Your task to perform on an android device: refresh tabs in the chrome app Image 0: 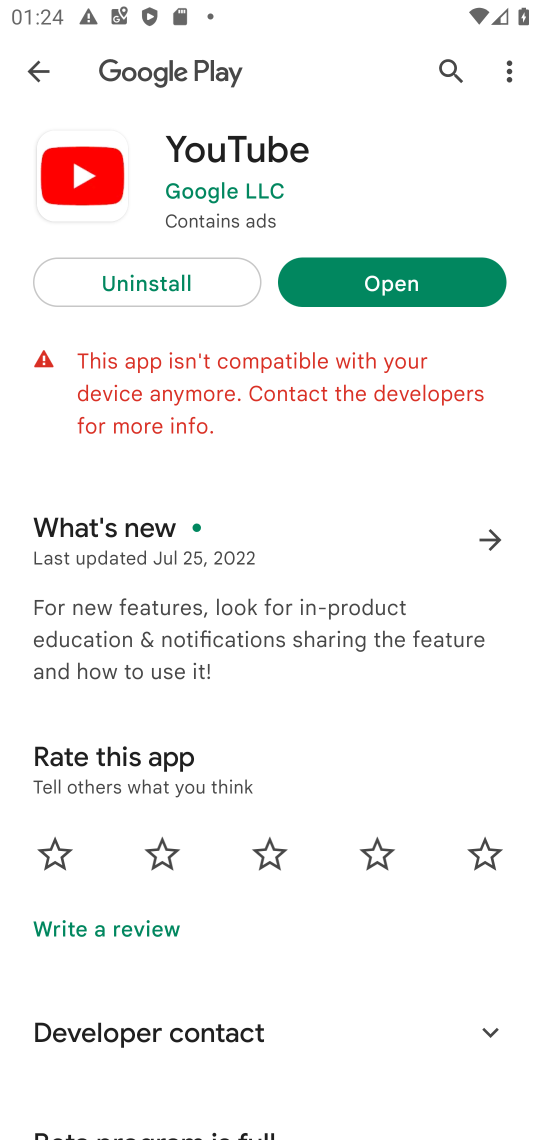
Step 0: press home button
Your task to perform on an android device: refresh tabs in the chrome app Image 1: 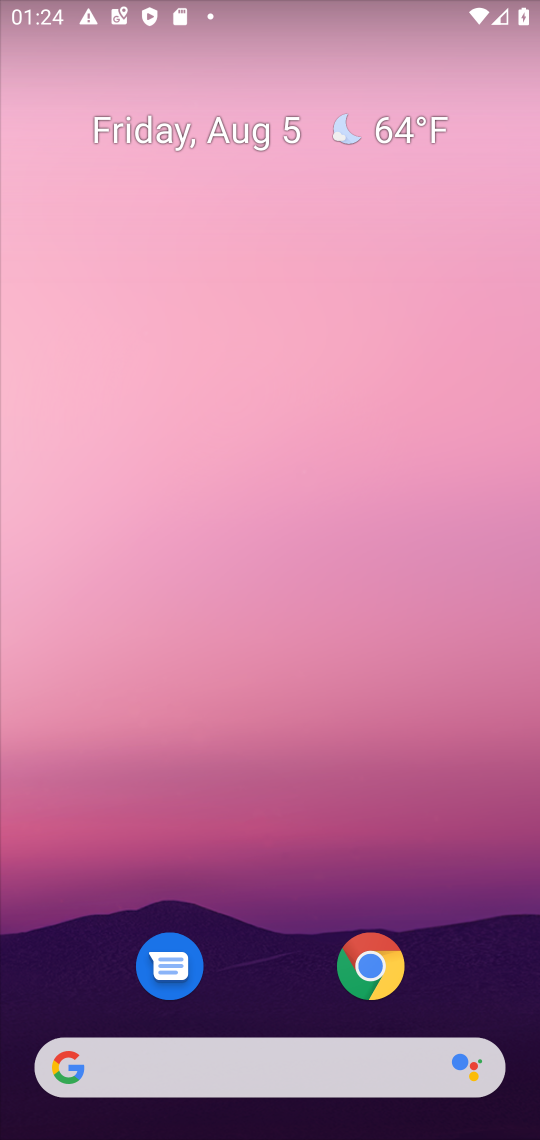
Step 1: click (376, 973)
Your task to perform on an android device: refresh tabs in the chrome app Image 2: 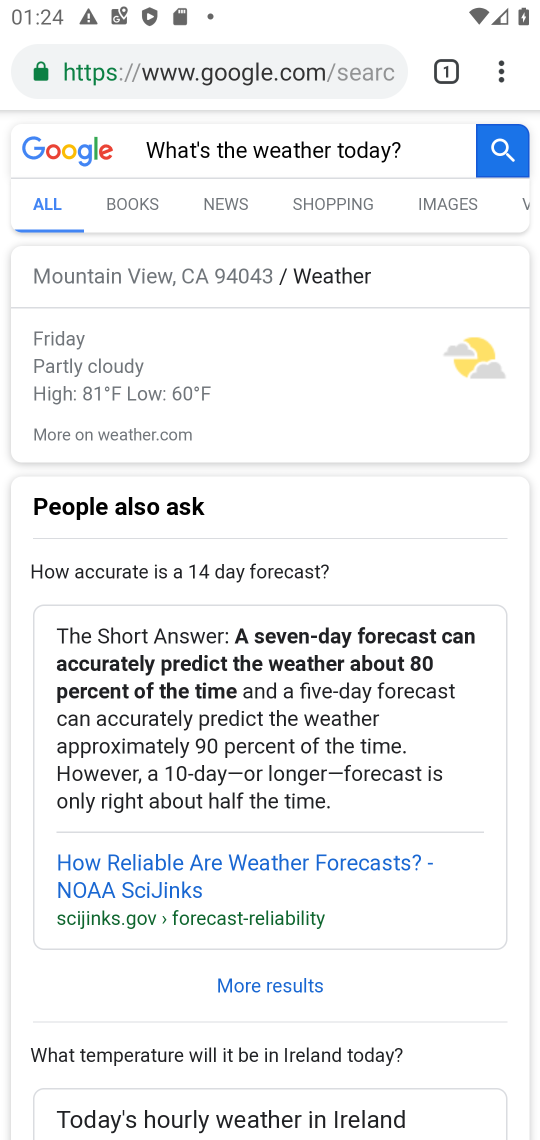
Step 2: click (503, 66)
Your task to perform on an android device: refresh tabs in the chrome app Image 3: 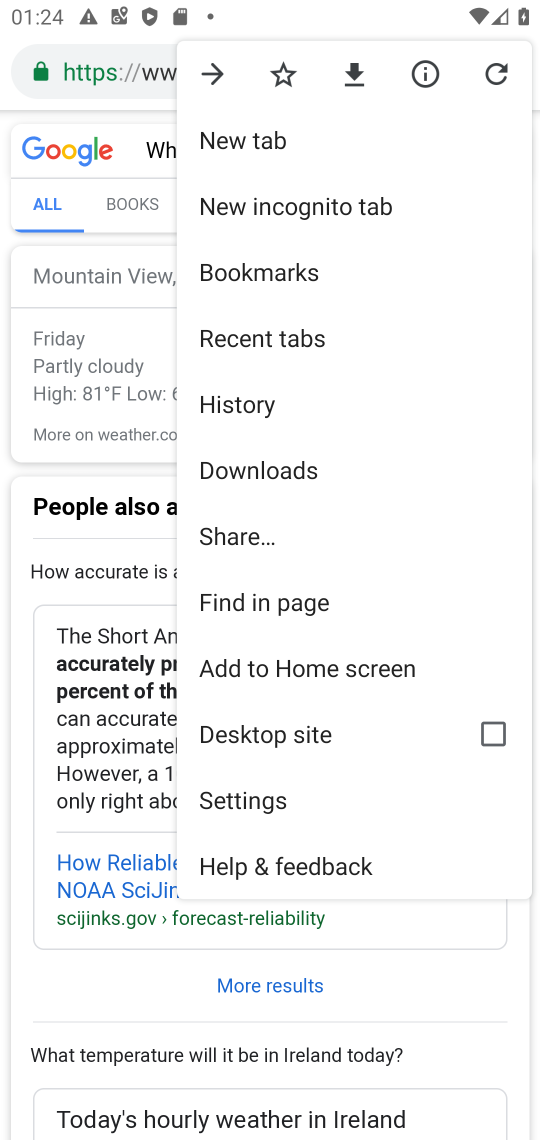
Step 3: click (503, 66)
Your task to perform on an android device: refresh tabs in the chrome app Image 4: 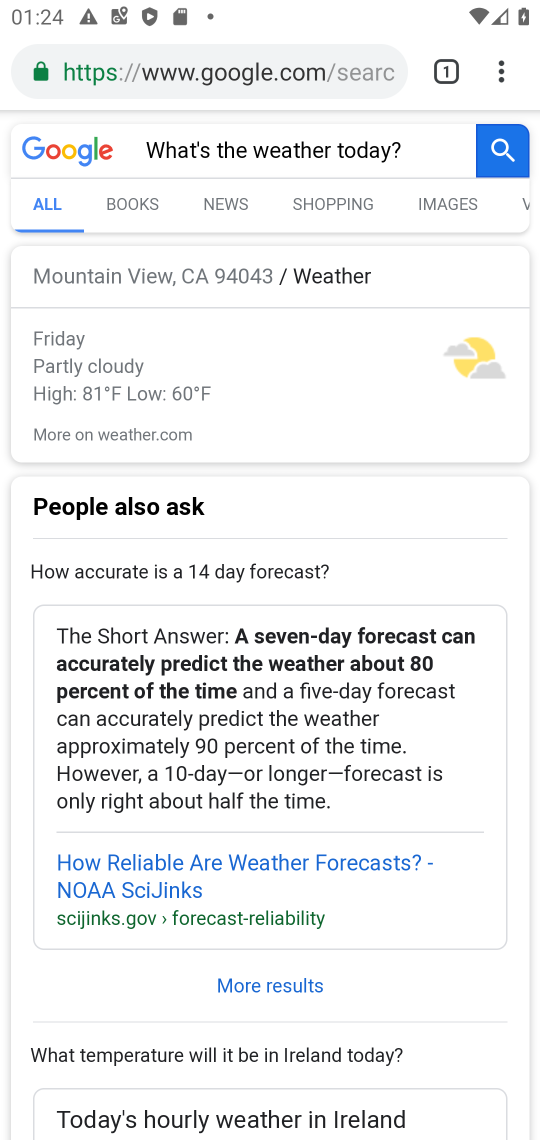
Step 4: task complete